Your task to perform on an android device: Go to ESPN.com Image 0: 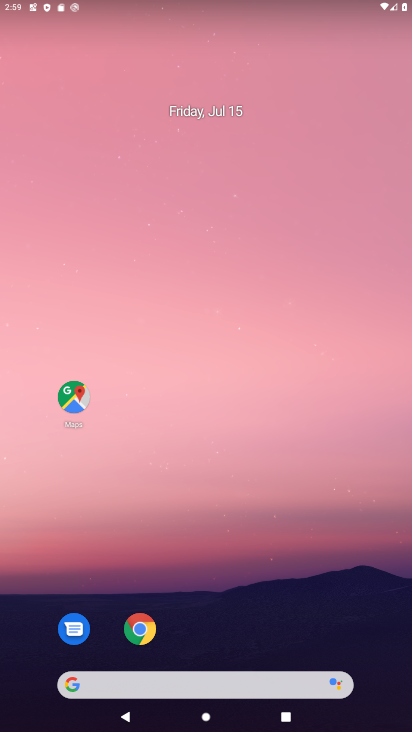
Step 0: click (142, 644)
Your task to perform on an android device: Go to ESPN.com Image 1: 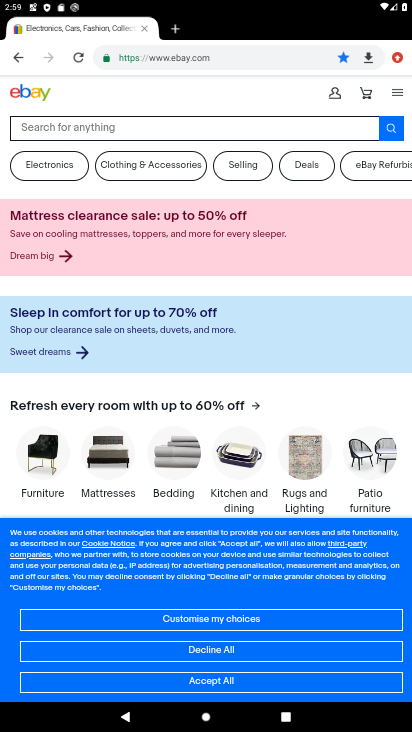
Step 1: drag from (404, 63) to (379, 91)
Your task to perform on an android device: Go to ESPN.com Image 2: 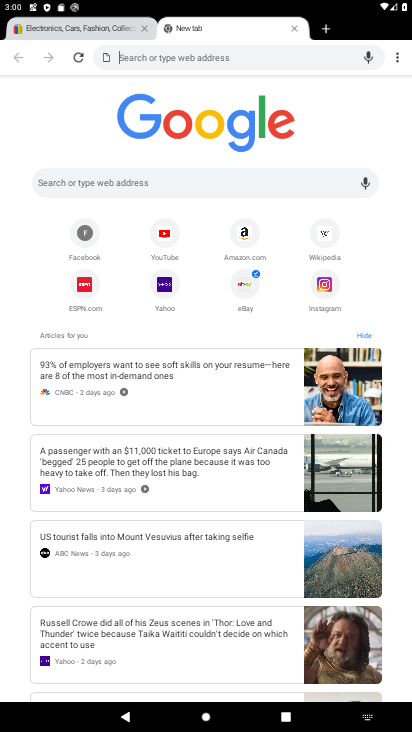
Step 2: click (81, 292)
Your task to perform on an android device: Go to ESPN.com Image 3: 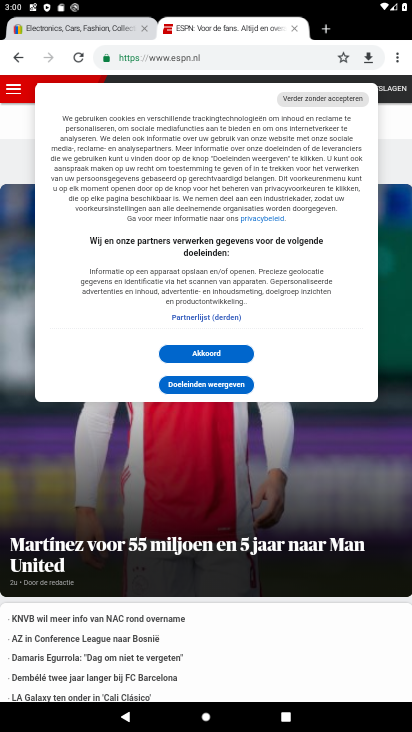
Step 3: task complete